Your task to perform on an android device: open a new tab in the chrome app Image 0: 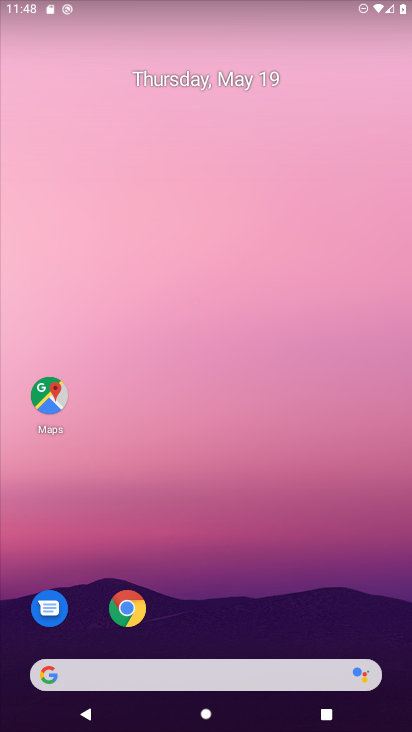
Step 0: click (143, 608)
Your task to perform on an android device: open a new tab in the chrome app Image 1: 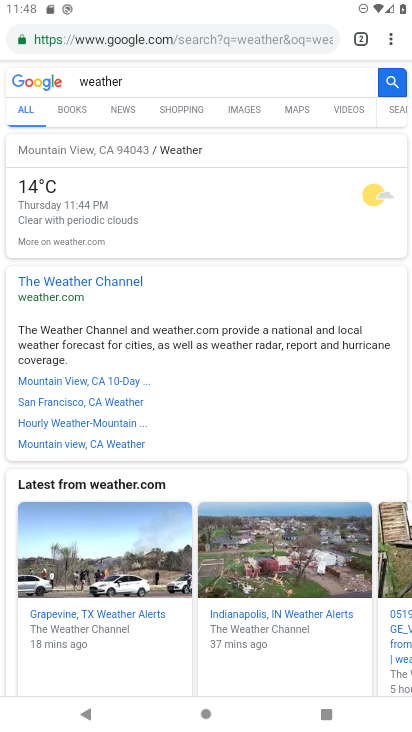
Step 1: task complete